Your task to perform on an android device: turn off priority inbox in the gmail app Image 0: 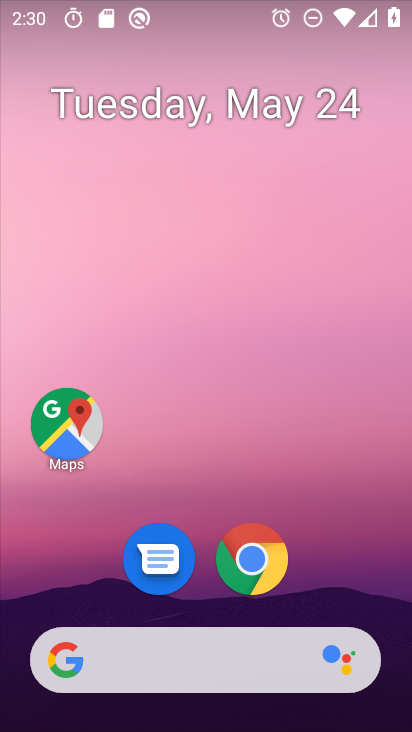
Step 0: drag from (402, 682) to (397, 160)
Your task to perform on an android device: turn off priority inbox in the gmail app Image 1: 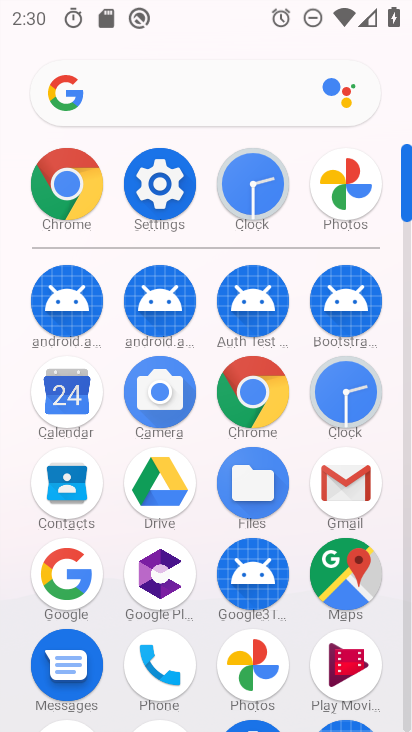
Step 1: click (347, 490)
Your task to perform on an android device: turn off priority inbox in the gmail app Image 2: 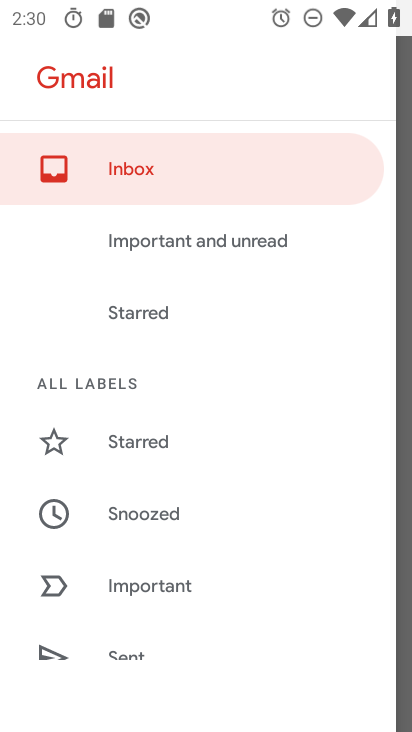
Step 2: drag from (252, 655) to (273, 346)
Your task to perform on an android device: turn off priority inbox in the gmail app Image 3: 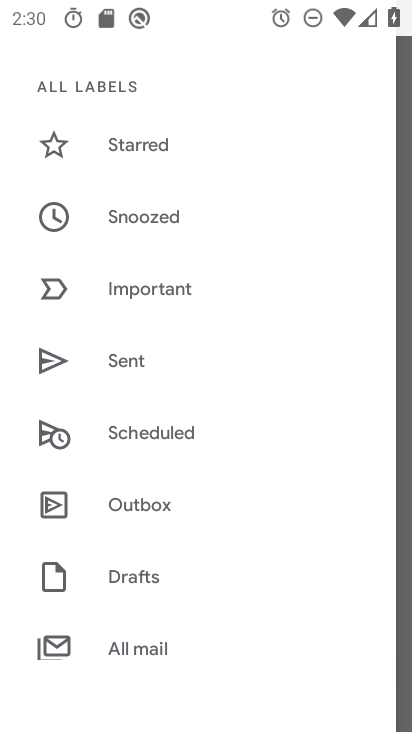
Step 3: drag from (255, 573) to (249, 339)
Your task to perform on an android device: turn off priority inbox in the gmail app Image 4: 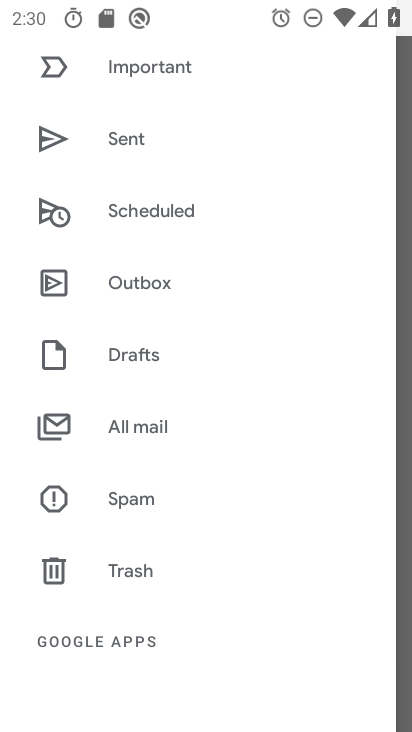
Step 4: drag from (232, 632) to (257, 334)
Your task to perform on an android device: turn off priority inbox in the gmail app Image 5: 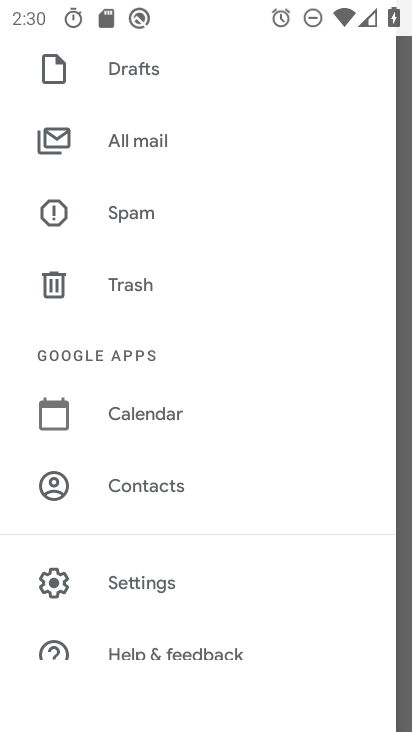
Step 5: click (142, 577)
Your task to perform on an android device: turn off priority inbox in the gmail app Image 6: 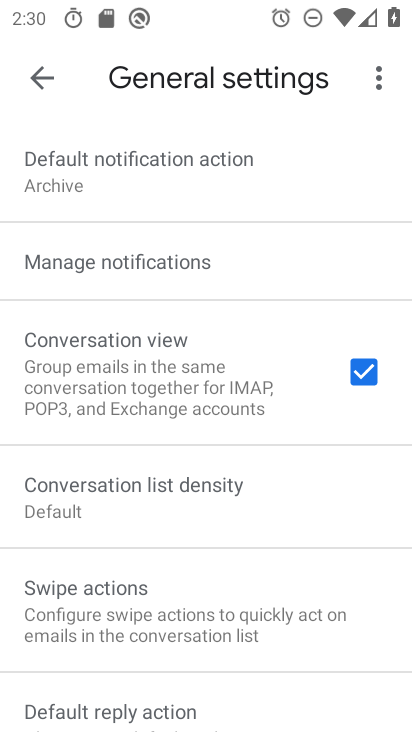
Step 6: click (38, 65)
Your task to perform on an android device: turn off priority inbox in the gmail app Image 7: 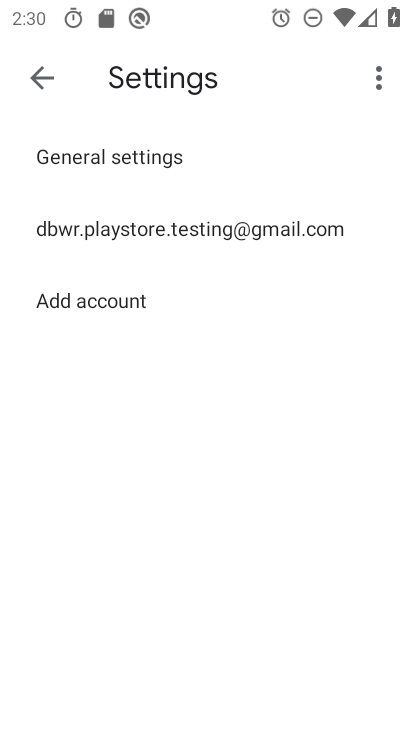
Step 7: click (141, 222)
Your task to perform on an android device: turn off priority inbox in the gmail app Image 8: 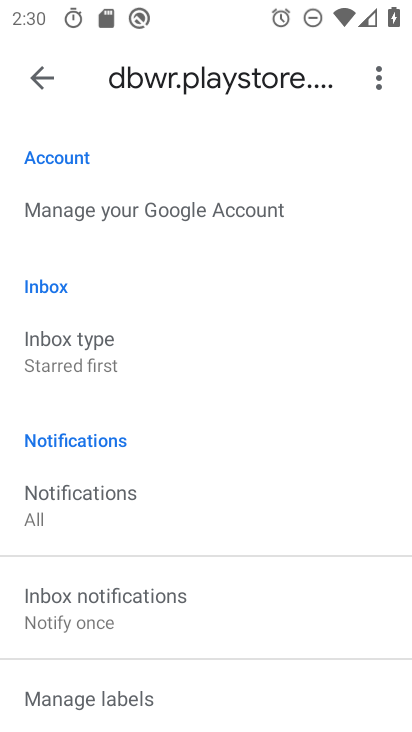
Step 8: click (63, 346)
Your task to perform on an android device: turn off priority inbox in the gmail app Image 9: 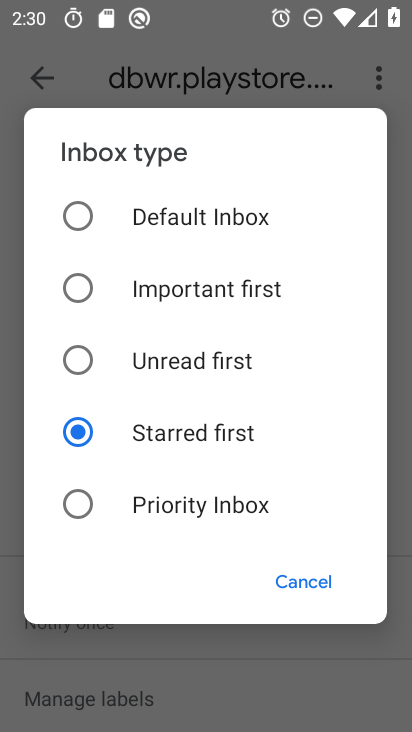
Step 9: click (80, 205)
Your task to perform on an android device: turn off priority inbox in the gmail app Image 10: 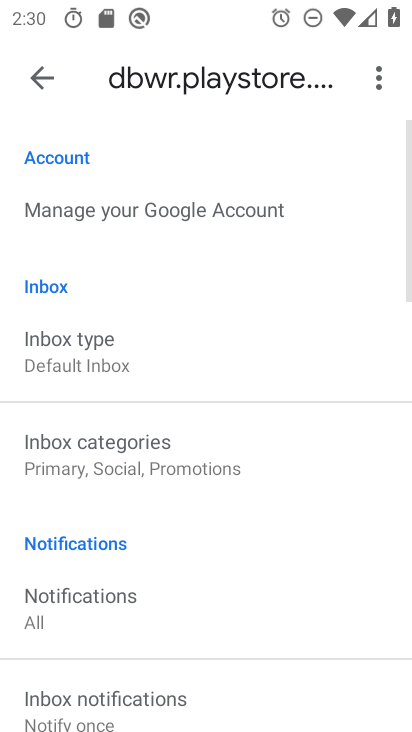
Step 10: task complete